Your task to perform on an android device: Open battery settings Image 0: 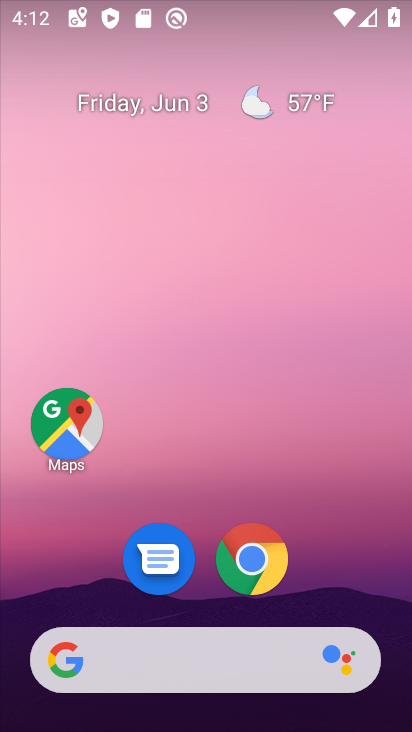
Step 0: drag from (322, 568) to (314, 78)
Your task to perform on an android device: Open battery settings Image 1: 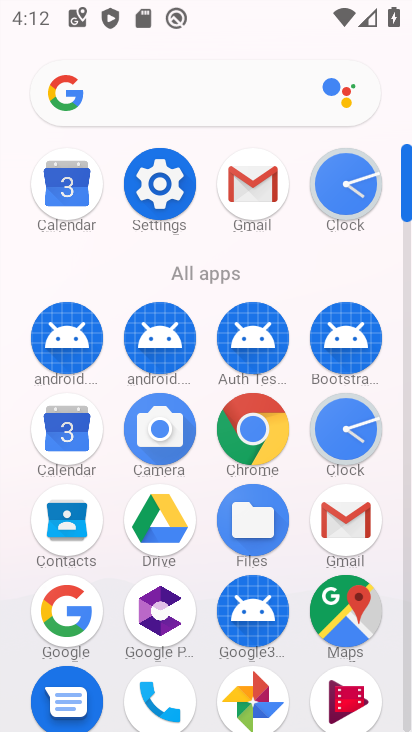
Step 1: click (165, 195)
Your task to perform on an android device: Open battery settings Image 2: 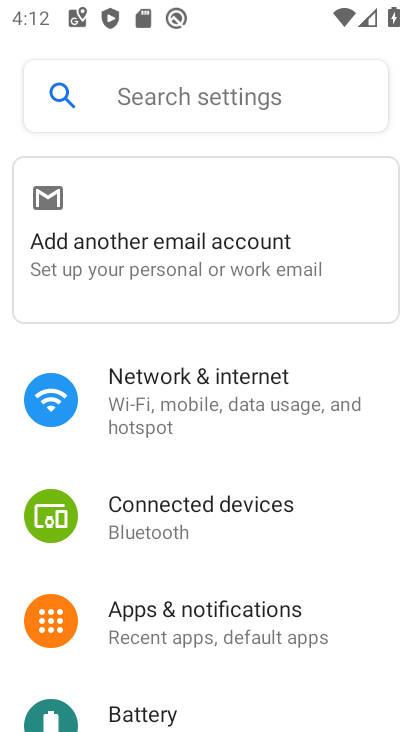
Step 2: drag from (274, 701) to (274, 287)
Your task to perform on an android device: Open battery settings Image 3: 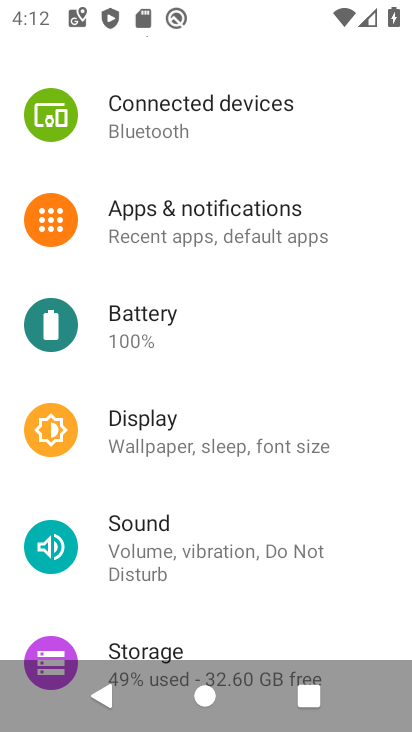
Step 3: click (150, 326)
Your task to perform on an android device: Open battery settings Image 4: 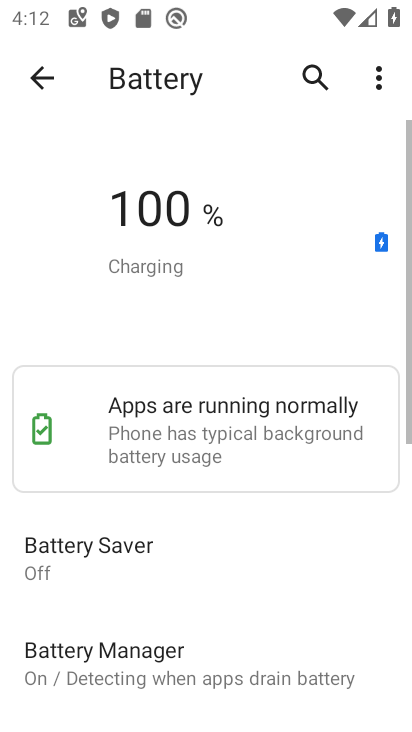
Step 4: task complete